Your task to perform on an android device: turn off wifi Image 0: 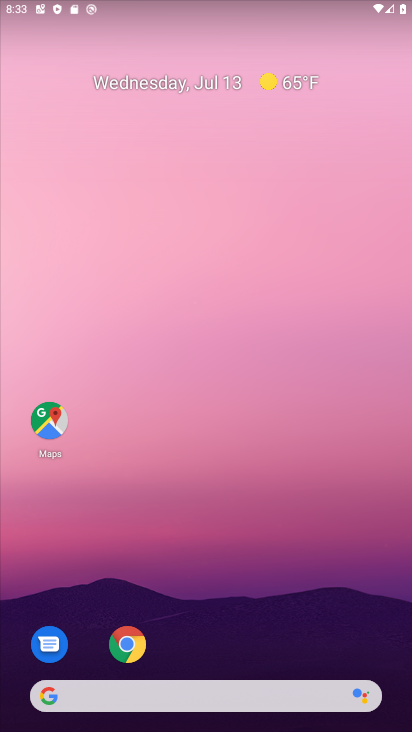
Step 0: drag from (285, 554) to (183, 33)
Your task to perform on an android device: turn off wifi Image 1: 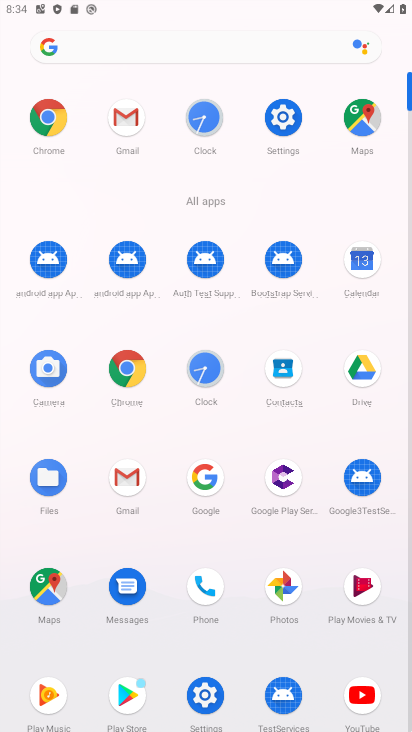
Step 1: click (294, 114)
Your task to perform on an android device: turn off wifi Image 2: 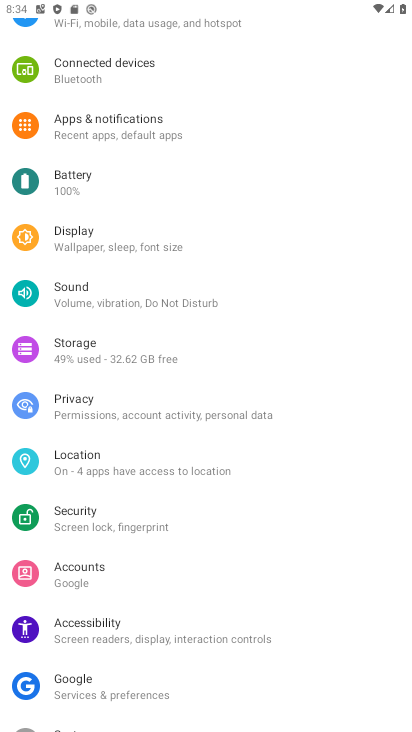
Step 2: drag from (137, 95) to (245, 497)
Your task to perform on an android device: turn off wifi Image 3: 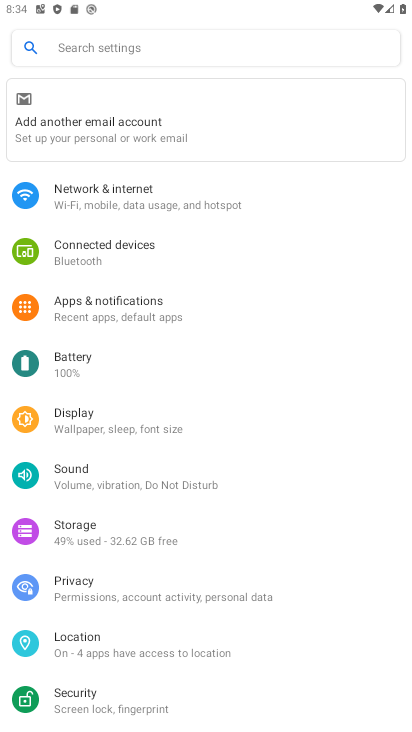
Step 3: click (129, 205)
Your task to perform on an android device: turn off wifi Image 4: 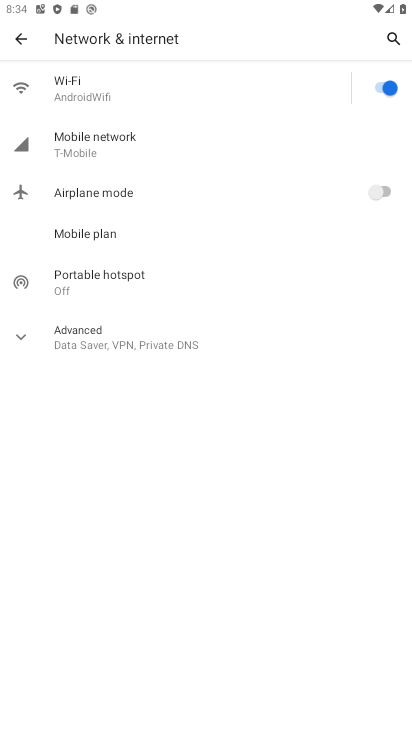
Step 4: click (386, 76)
Your task to perform on an android device: turn off wifi Image 5: 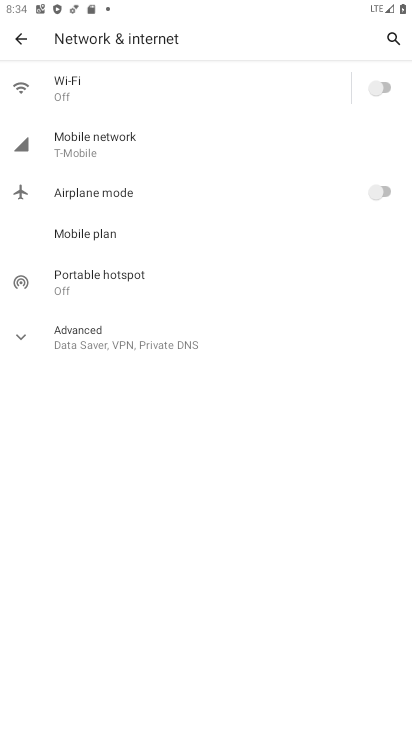
Step 5: task complete